Your task to perform on an android device: change alarm snooze length Image 0: 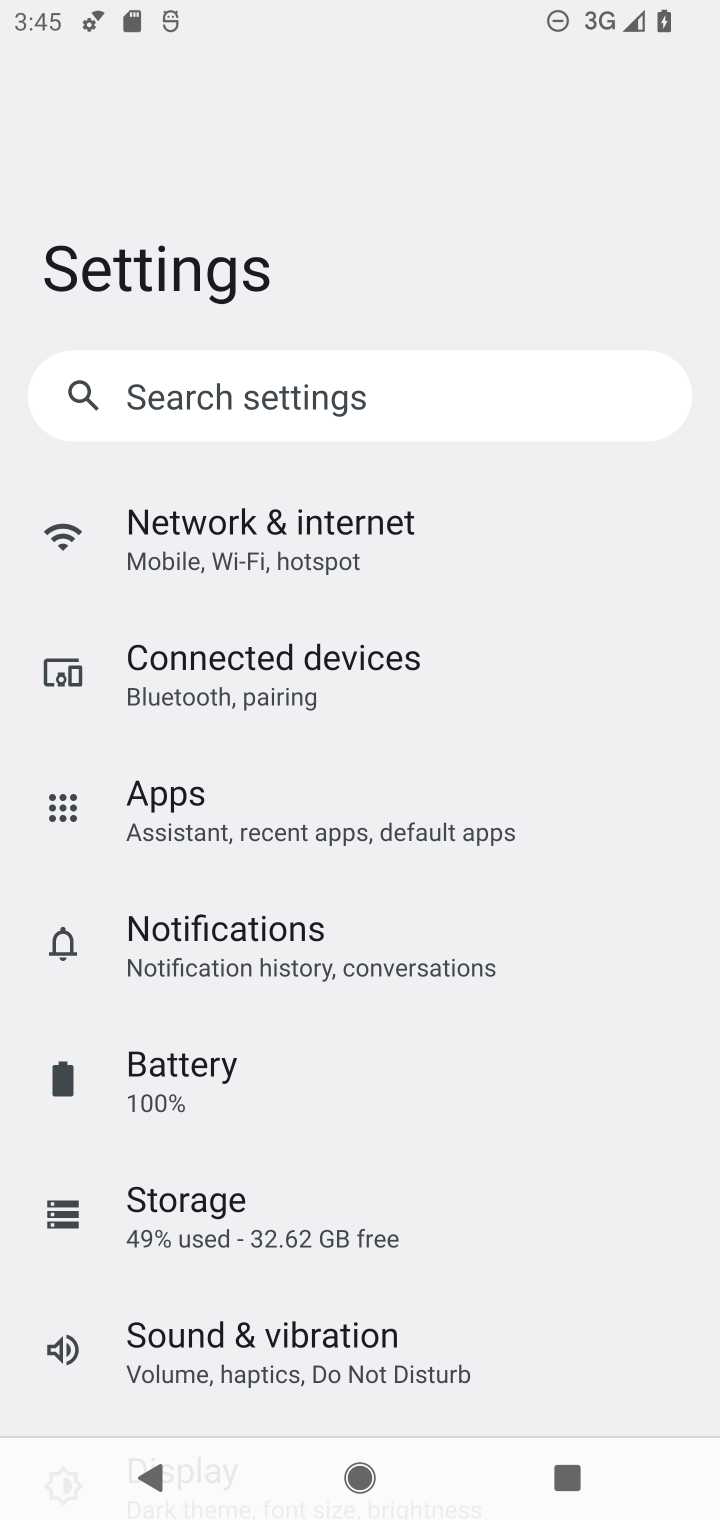
Step 0: press home button
Your task to perform on an android device: change alarm snooze length Image 1: 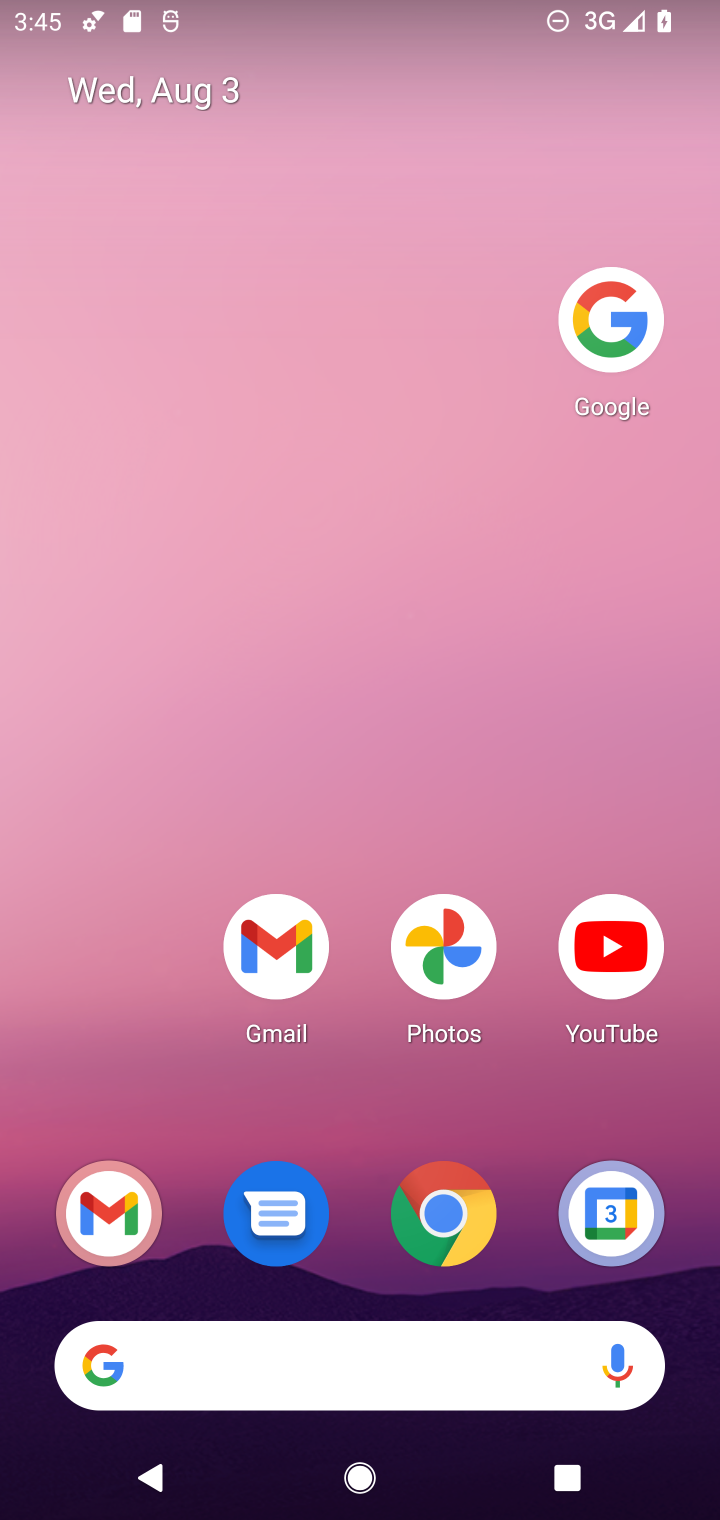
Step 1: drag from (346, 1264) to (318, 524)
Your task to perform on an android device: change alarm snooze length Image 2: 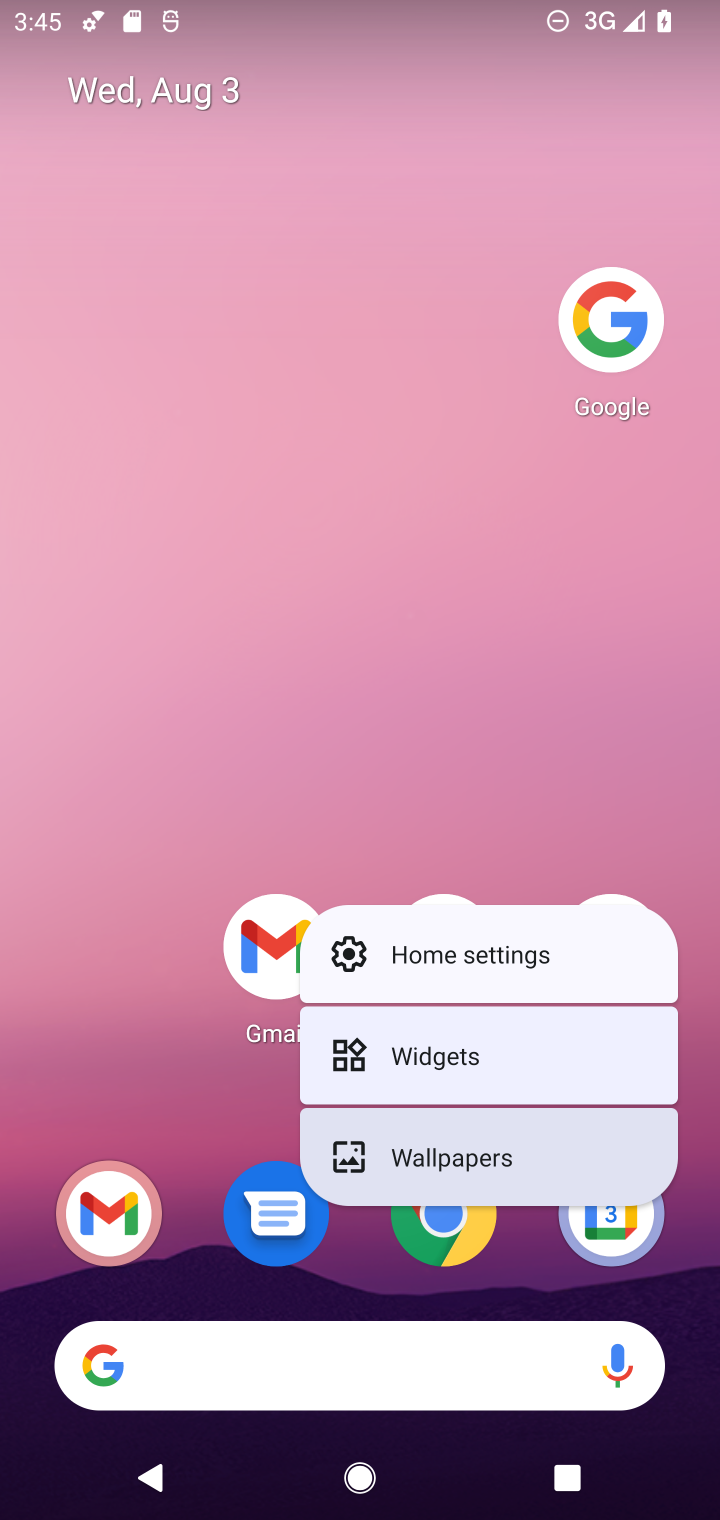
Step 2: click (297, 778)
Your task to perform on an android device: change alarm snooze length Image 3: 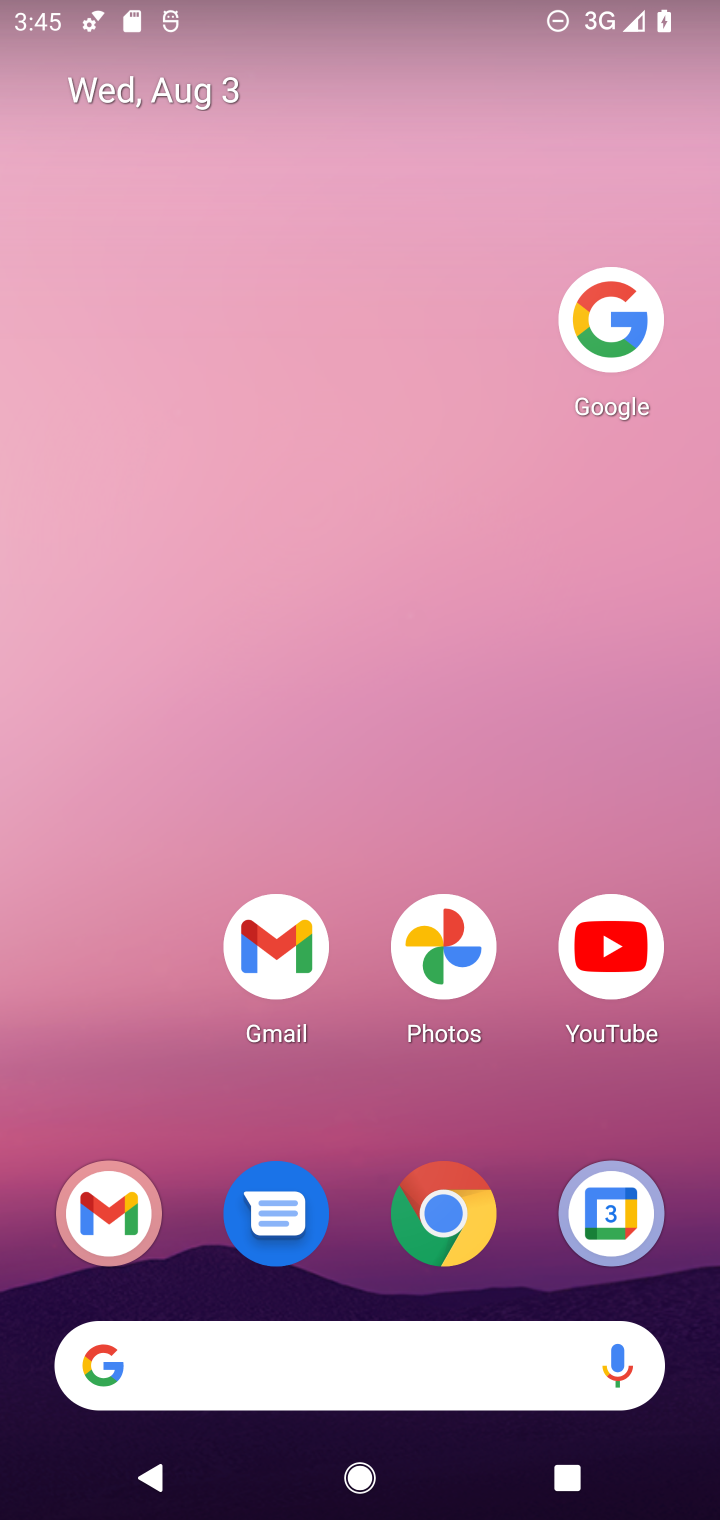
Step 3: drag from (312, 1273) to (291, 419)
Your task to perform on an android device: change alarm snooze length Image 4: 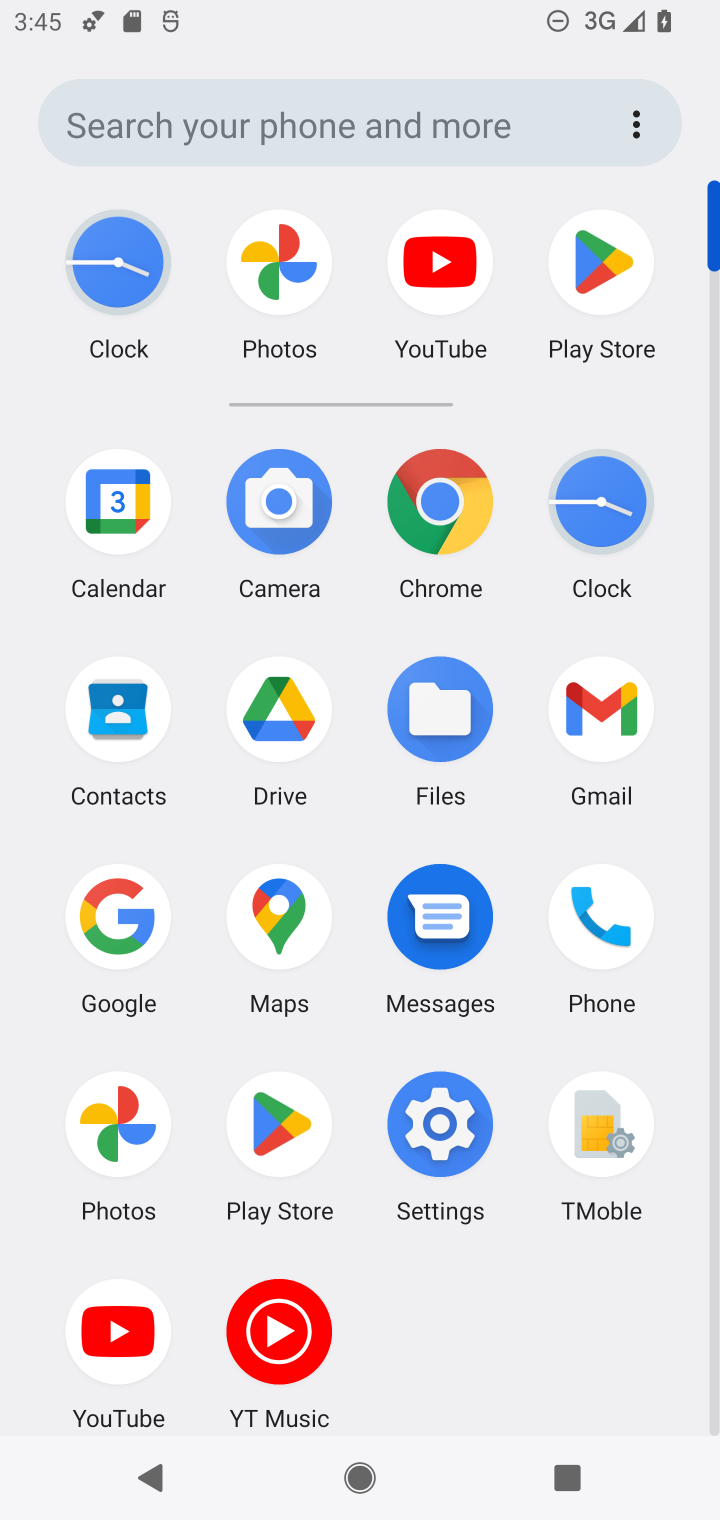
Step 4: click (599, 457)
Your task to perform on an android device: change alarm snooze length Image 5: 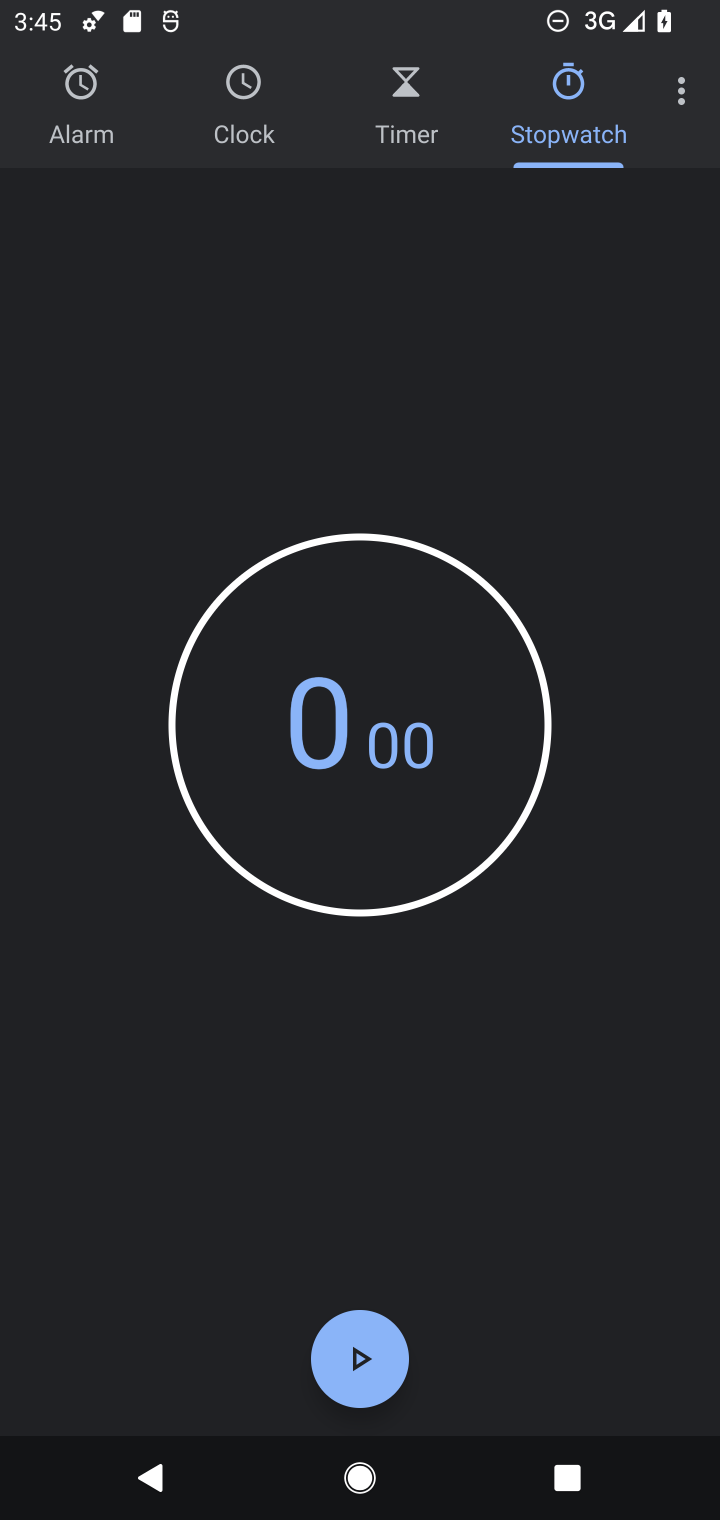
Step 5: click (675, 93)
Your task to perform on an android device: change alarm snooze length Image 6: 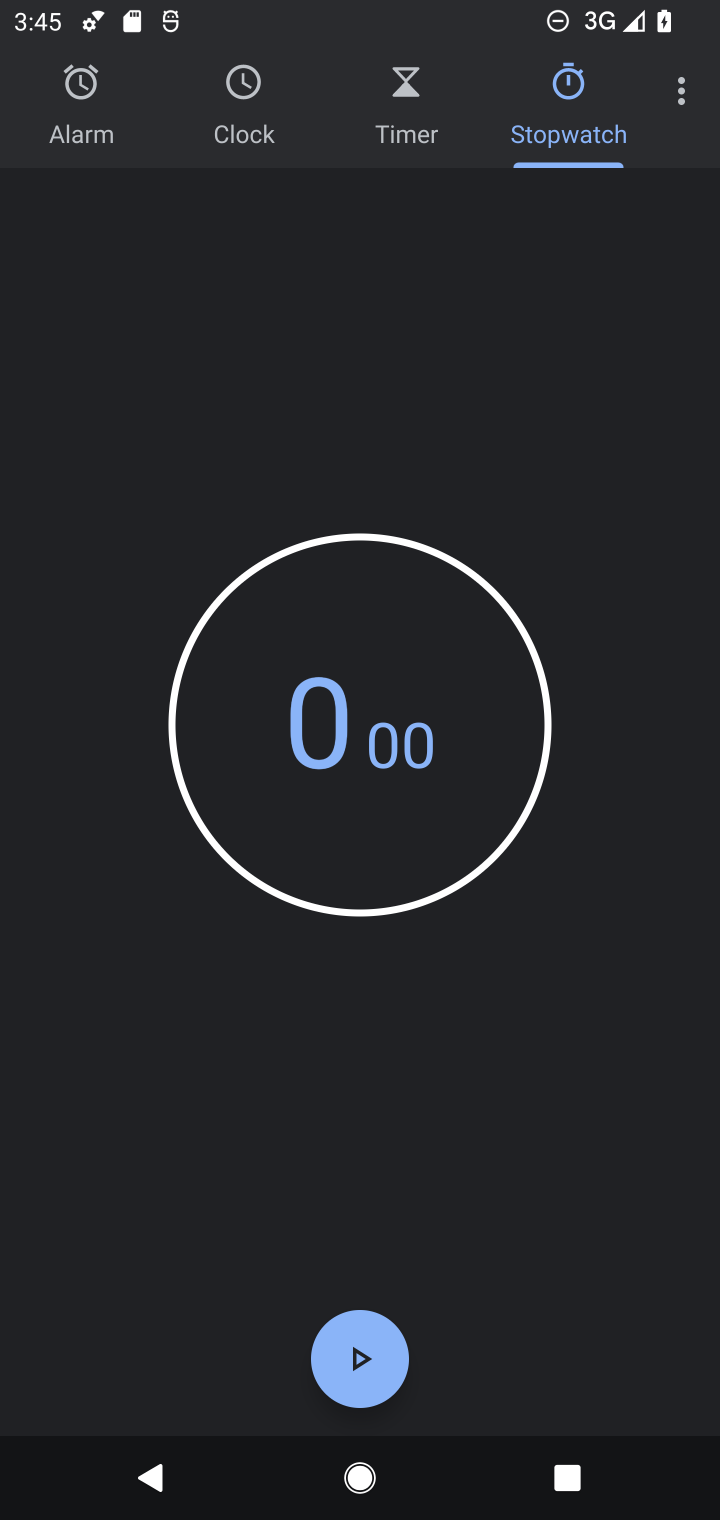
Step 6: click (681, 88)
Your task to perform on an android device: change alarm snooze length Image 7: 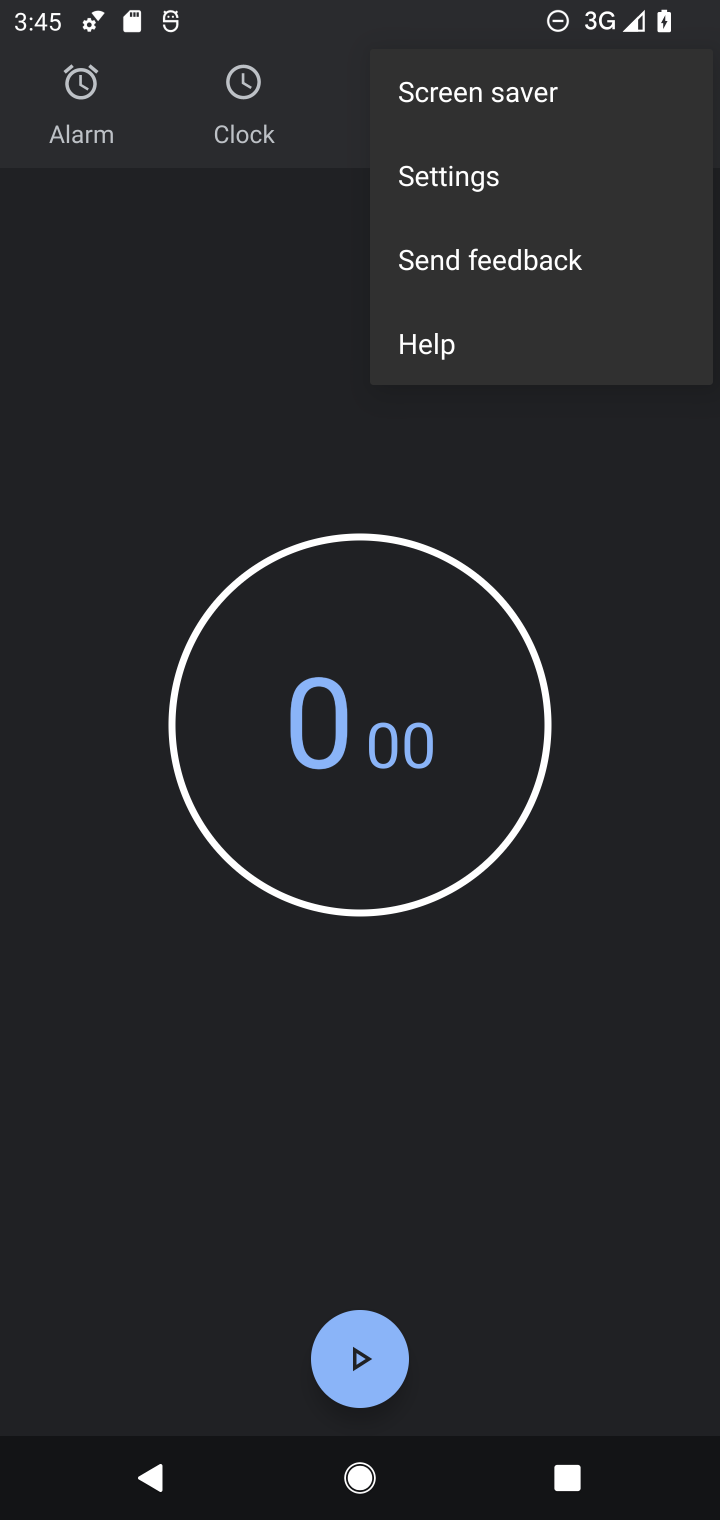
Step 7: click (466, 199)
Your task to perform on an android device: change alarm snooze length Image 8: 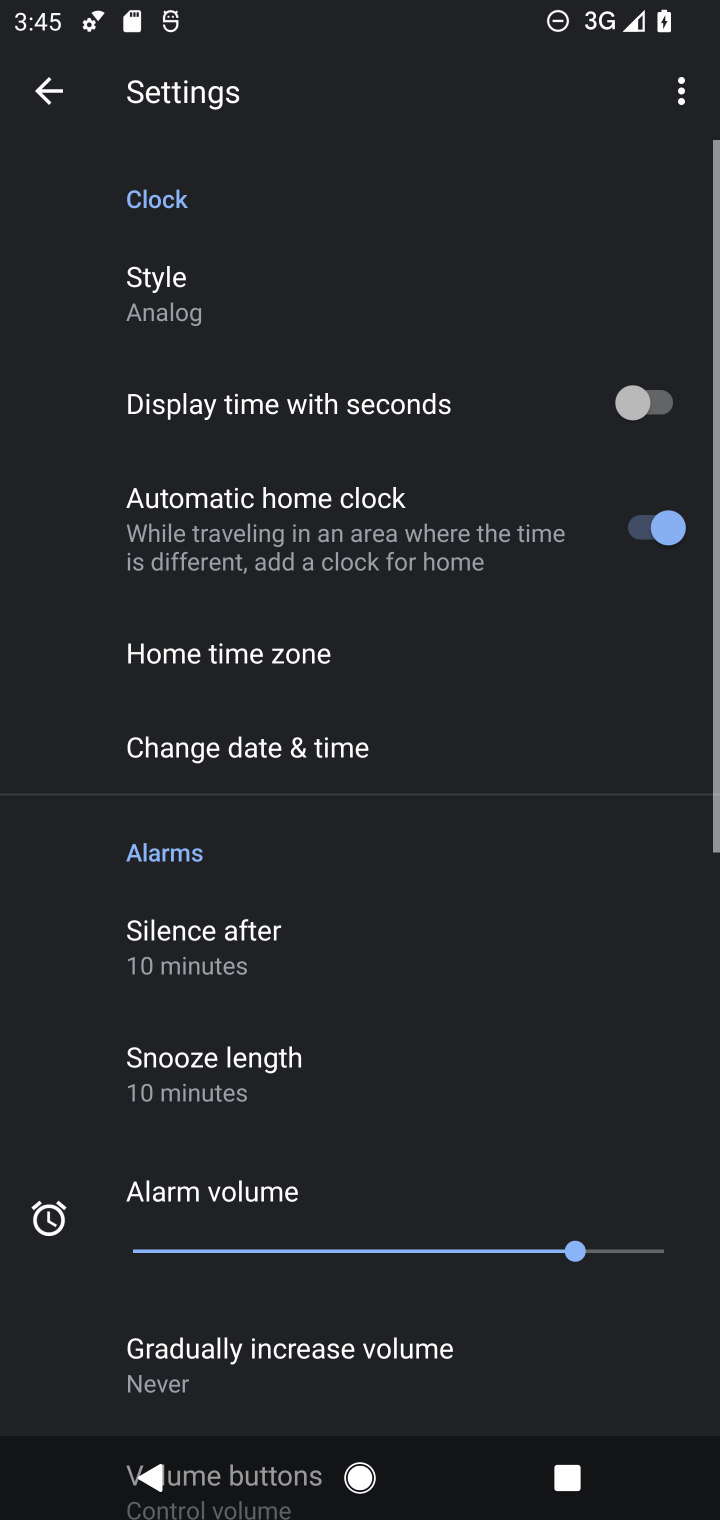
Step 8: click (466, 179)
Your task to perform on an android device: change alarm snooze length Image 9: 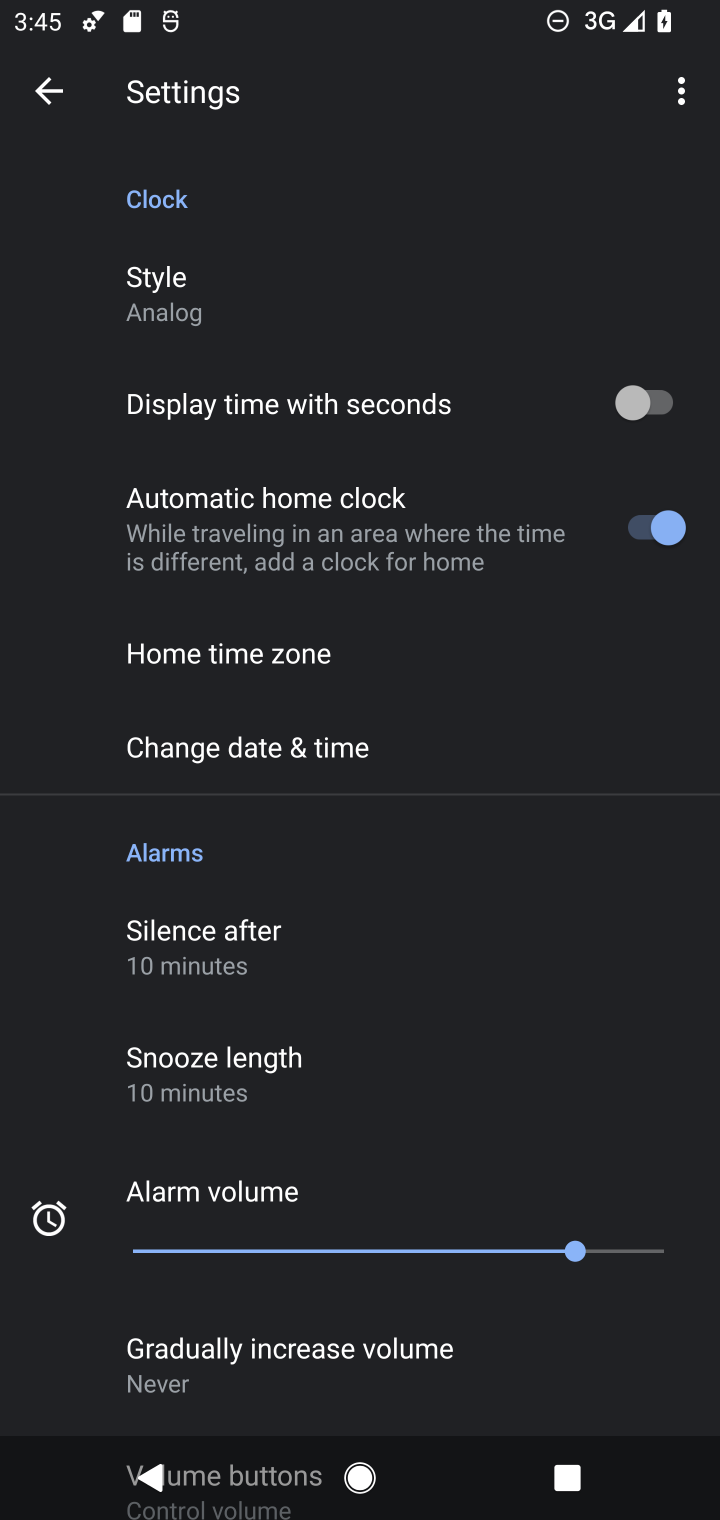
Step 9: click (165, 1070)
Your task to perform on an android device: change alarm snooze length Image 10: 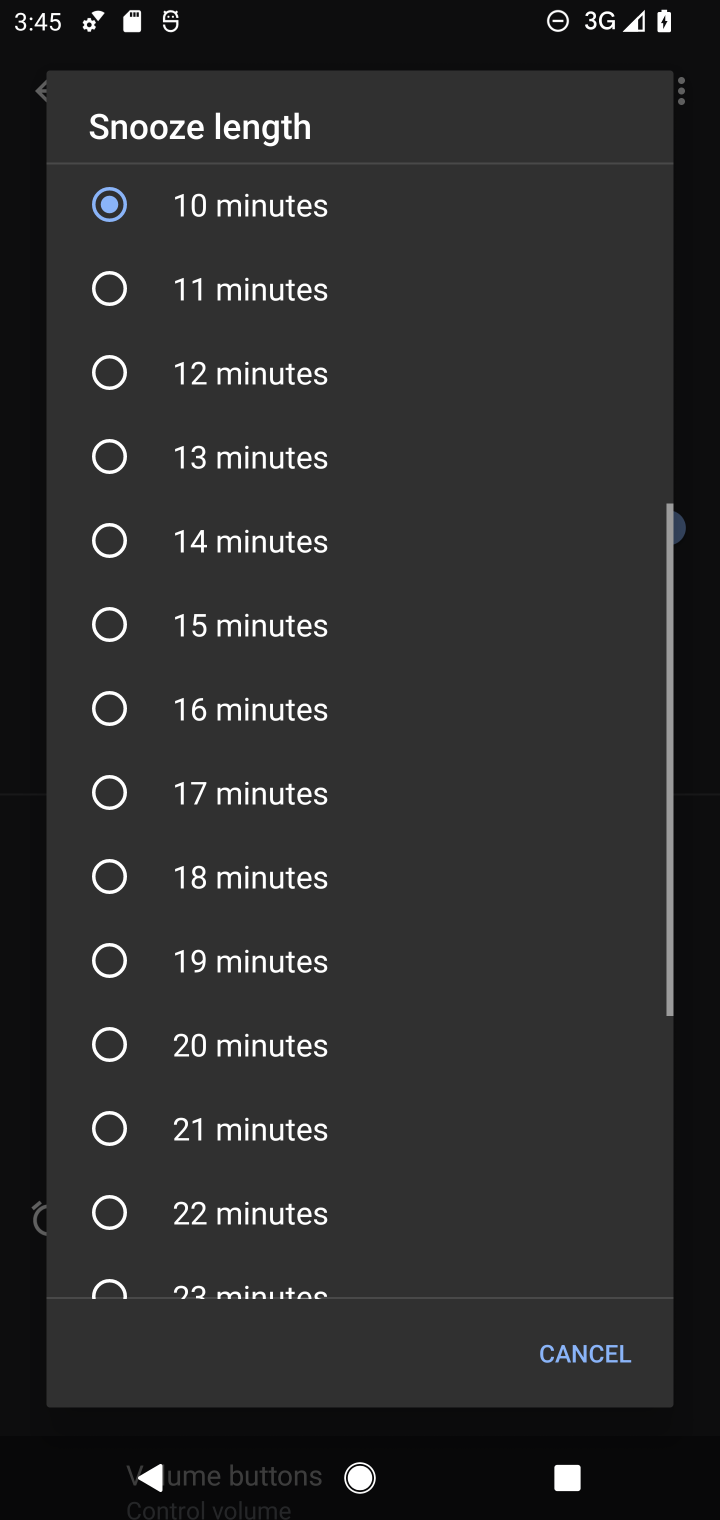
Step 10: click (191, 879)
Your task to perform on an android device: change alarm snooze length Image 11: 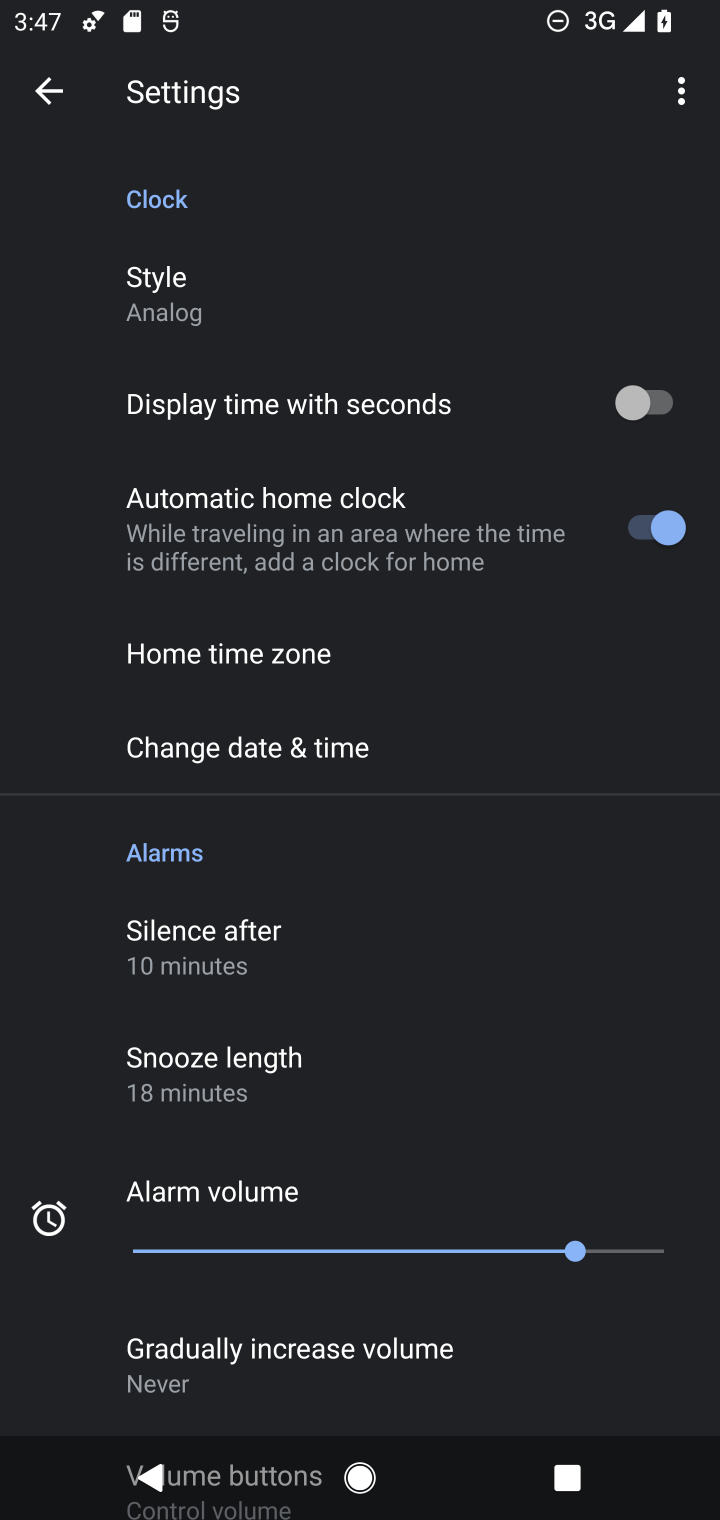
Step 11: task complete